Your task to perform on an android device: snooze an email in the gmail app Image 0: 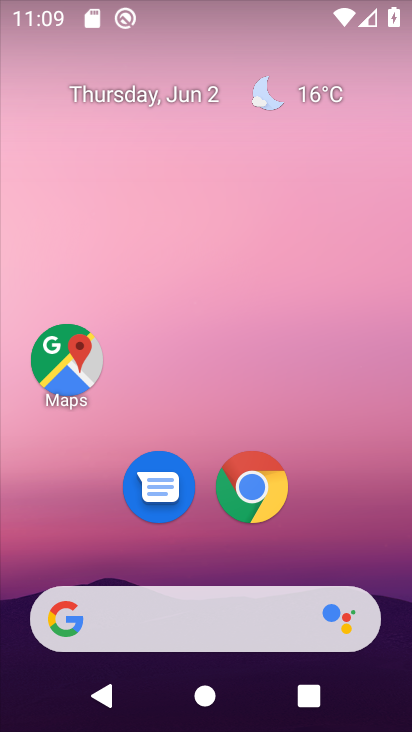
Step 0: drag from (337, 473) to (214, 17)
Your task to perform on an android device: snooze an email in the gmail app Image 1: 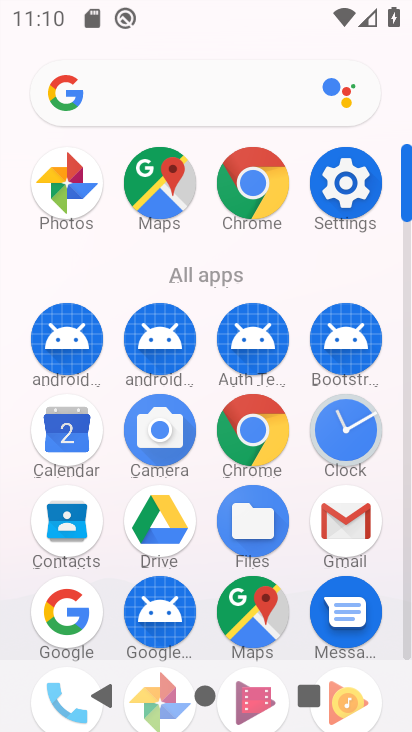
Step 1: click (344, 521)
Your task to perform on an android device: snooze an email in the gmail app Image 2: 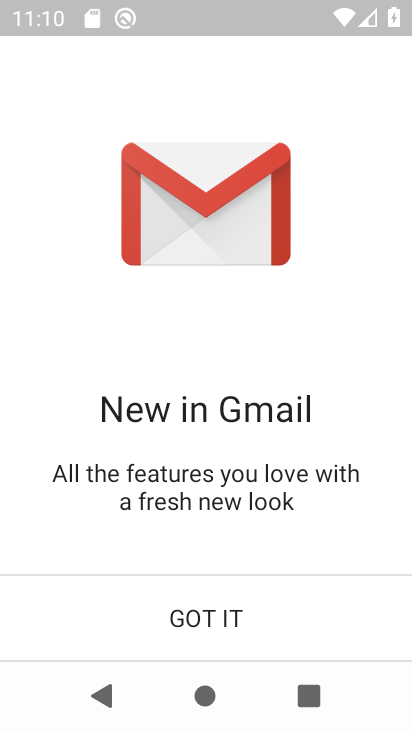
Step 2: click (196, 620)
Your task to perform on an android device: snooze an email in the gmail app Image 3: 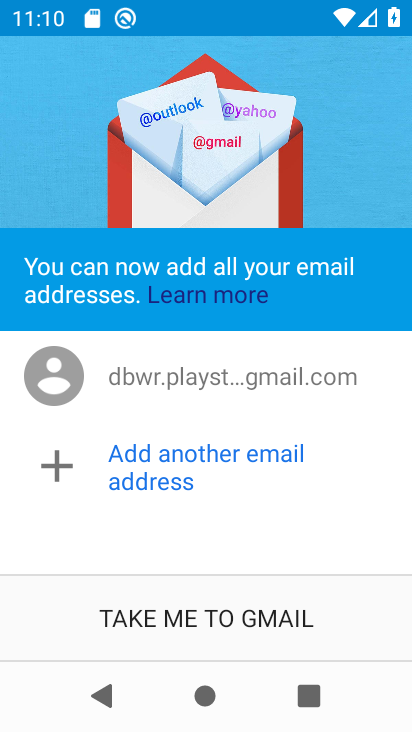
Step 3: click (196, 620)
Your task to perform on an android device: snooze an email in the gmail app Image 4: 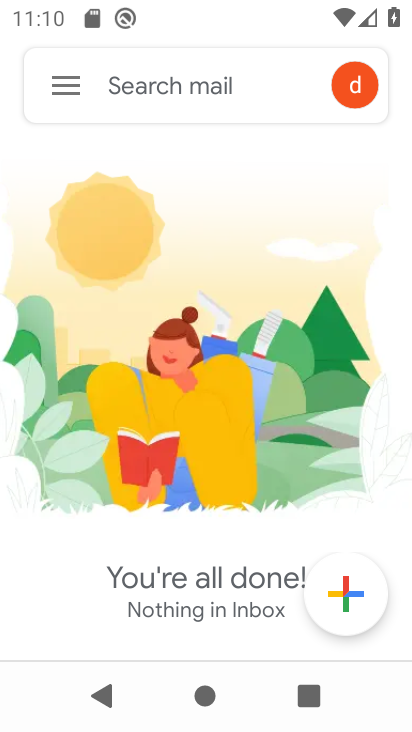
Step 4: click (75, 87)
Your task to perform on an android device: snooze an email in the gmail app Image 5: 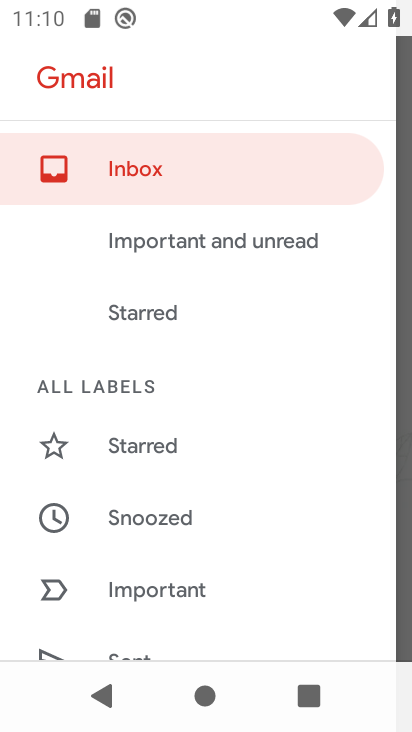
Step 5: drag from (148, 344) to (226, 239)
Your task to perform on an android device: snooze an email in the gmail app Image 6: 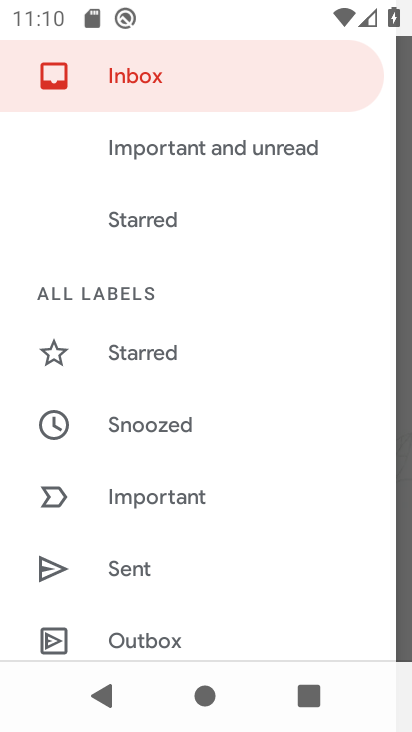
Step 6: drag from (157, 379) to (222, 284)
Your task to perform on an android device: snooze an email in the gmail app Image 7: 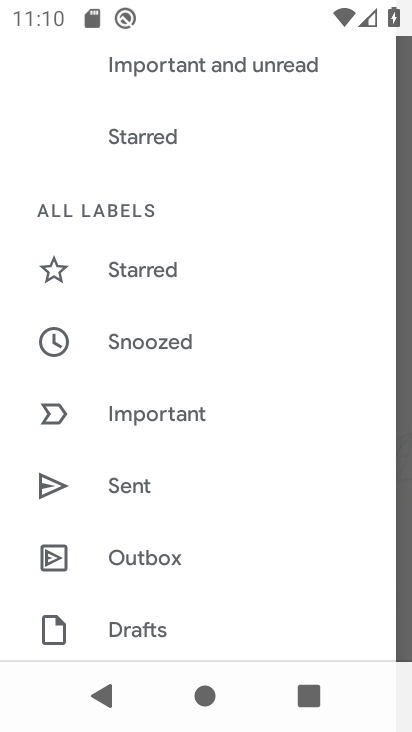
Step 7: drag from (149, 371) to (211, 283)
Your task to perform on an android device: snooze an email in the gmail app Image 8: 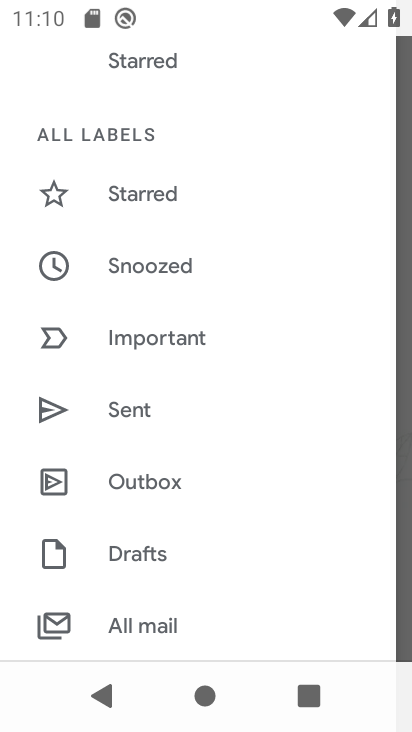
Step 8: click (161, 619)
Your task to perform on an android device: snooze an email in the gmail app Image 9: 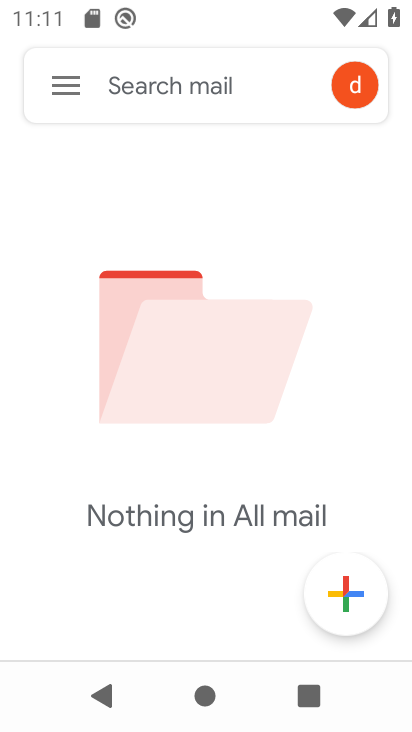
Step 9: click (69, 89)
Your task to perform on an android device: snooze an email in the gmail app Image 10: 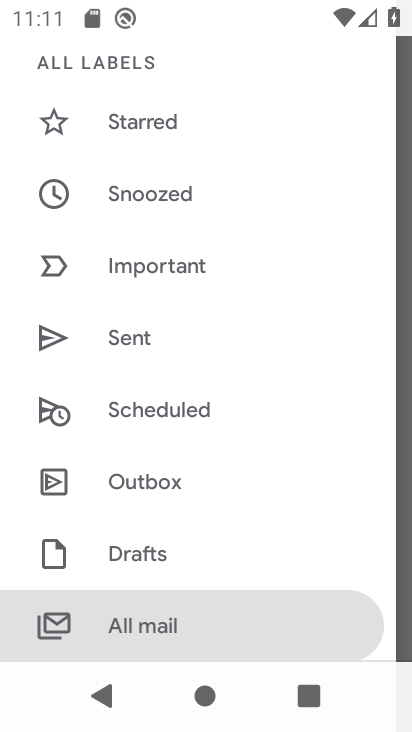
Step 10: drag from (149, 505) to (167, 589)
Your task to perform on an android device: snooze an email in the gmail app Image 11: 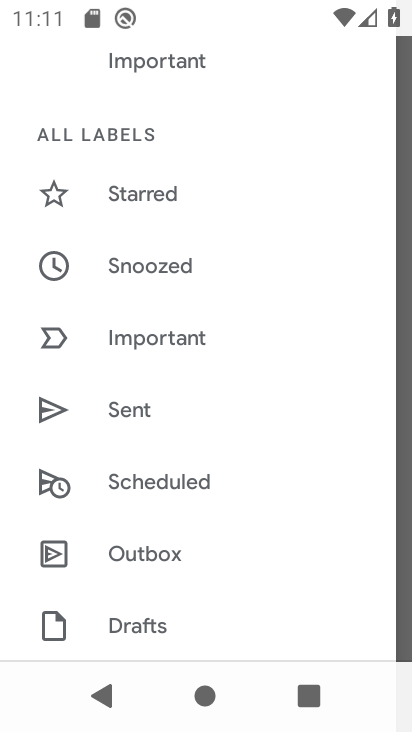
Step 11: drag from (197, 408) to (208, 521)
Your task to perform on an android device: snooze an email in the gmail app Image 12: 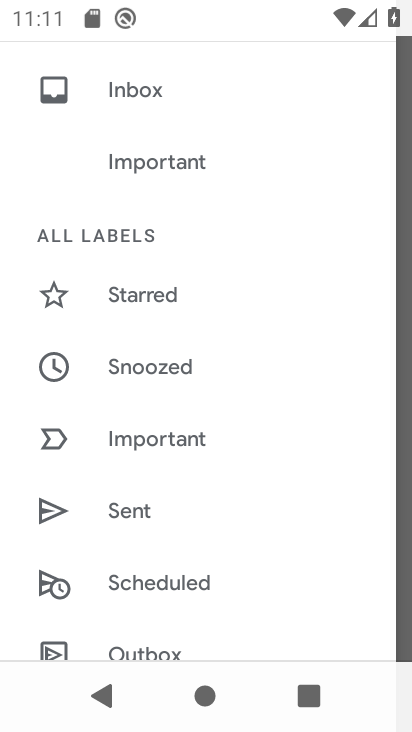
Step 12: drag from (188, 284) to (190, 412)
Your task to perform on an android device: snooze an email in the gmail app Image 13: 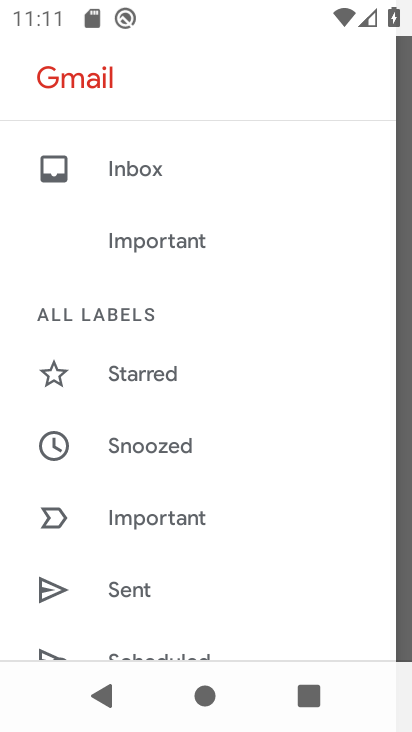
Step 13: drag from (122, 487) to (222, 365)
Your task to perform on an android device: snooze an email in the gmail app Image 14: 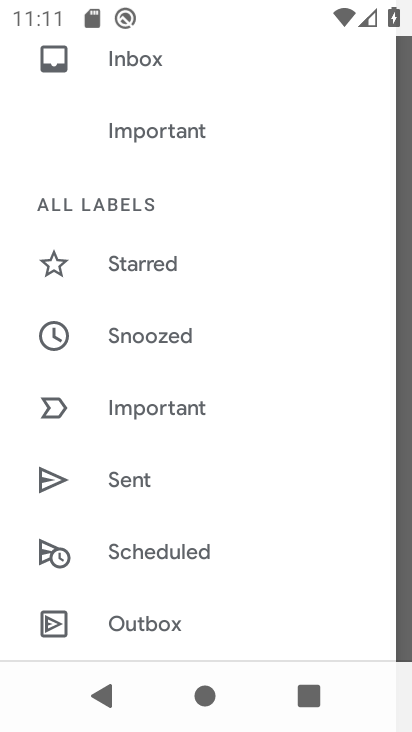
Step 14: click (194, 344)
Your task to perform on an android device: snooze an email in the gmail app Image 15: 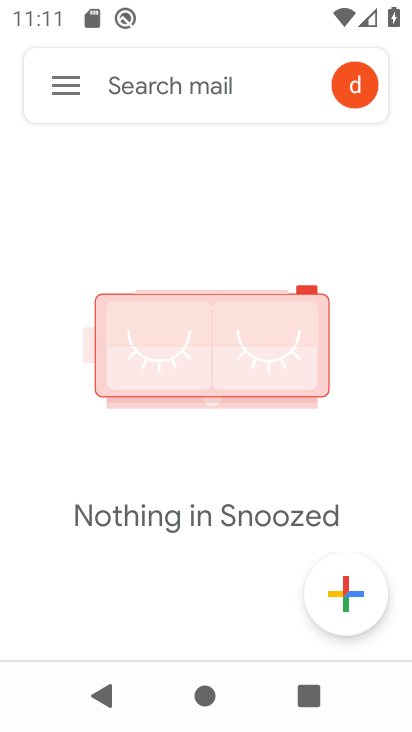
Step 15: click (55, 91)
Your task to perform on an android device: snooze an email in the gmail app Image 16: 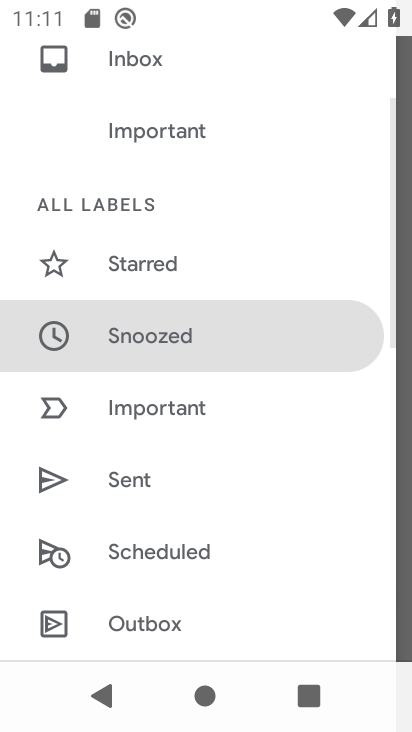
Step 16: drag from (164, 173) to (162, 254)
Your task to perform on an android device: snooze an email in the gmail app Image 17: 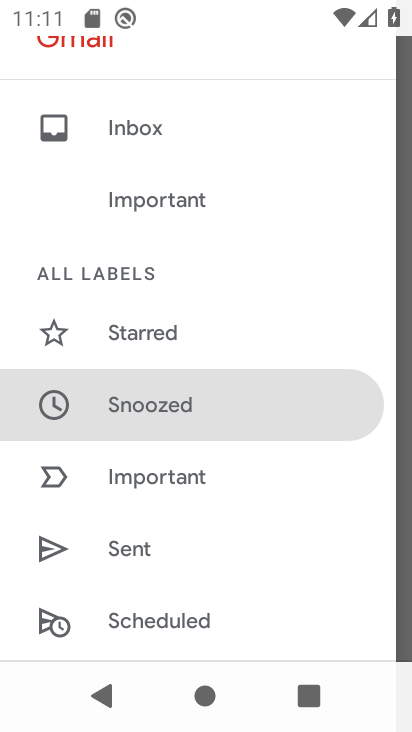
Step 17: click (141, 135)
Your task to perform on an android device: snooze an email in the gmail app Image 18: 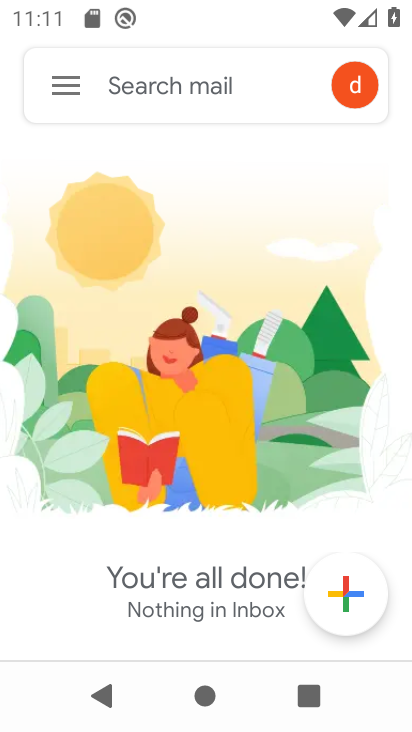
Step 18: task complete